Your task to perform on an android device: delete browsing data in the chrome app Image 0: 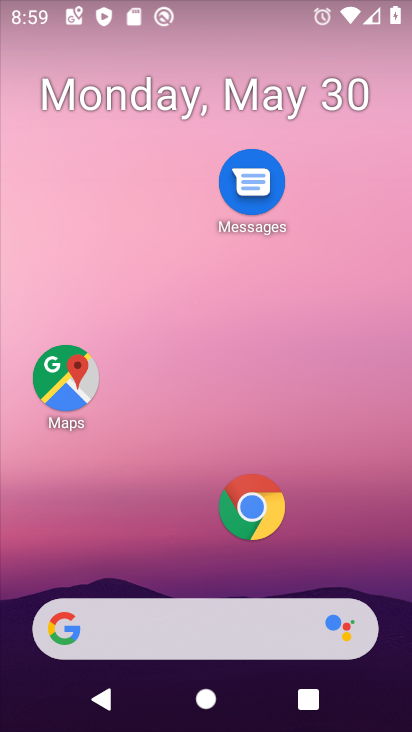
Step 0: click (256, 511)
Your task to perform on an android device: delete browsing data in the chrome app Image 1: 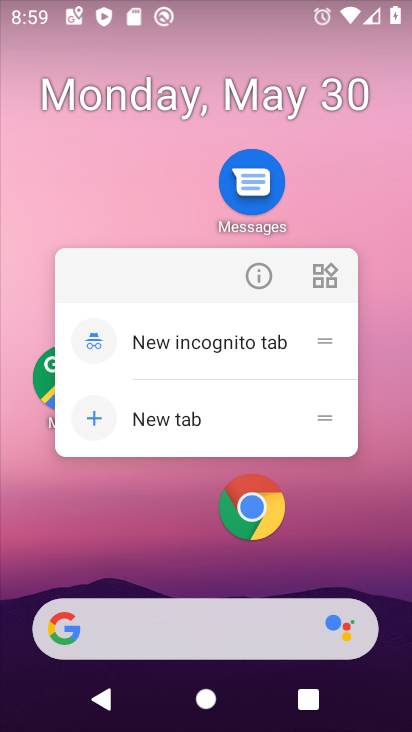
Step 1: click (262, 526)
Your task to perform on an android device: delete browsing data in the chrome app Image 2: 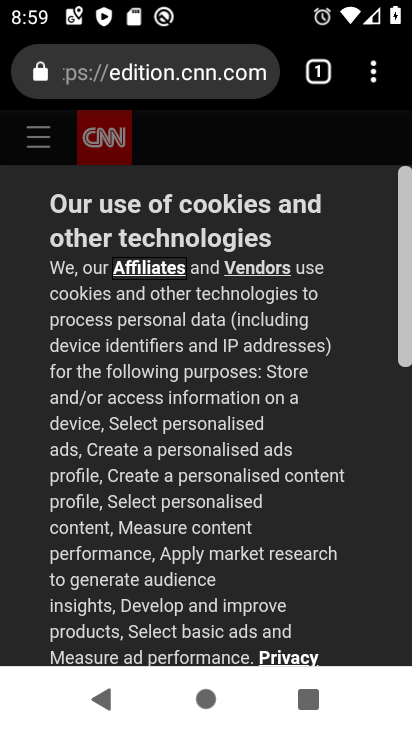
Step 2: click (378, 77)
Your task to perform on an android device: delete browsing data in the chrome app Image 3: 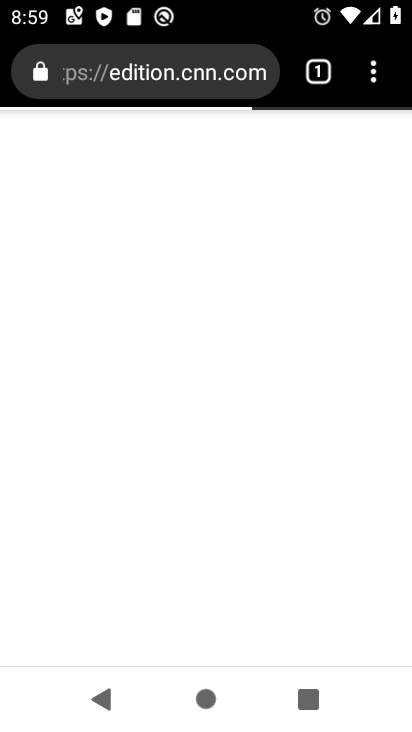
Step 3: click (372, 78)
Your task to perform on an android device: delete browsing data in the chrome app Image 4: 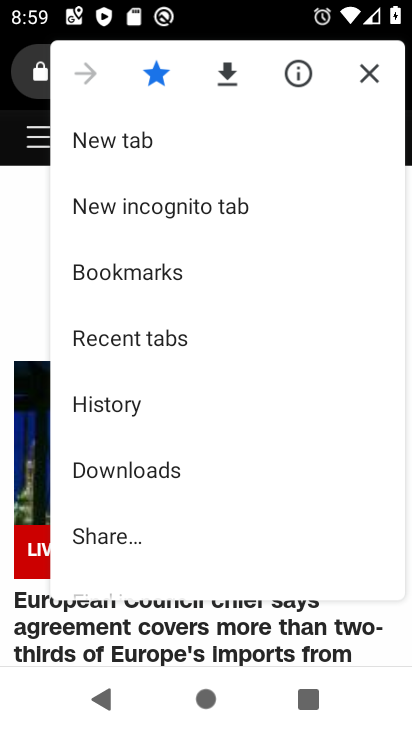
Step 4: click (120, 409)
Your task to perform on an android device: delete browsing data in the chrome app Image 5: 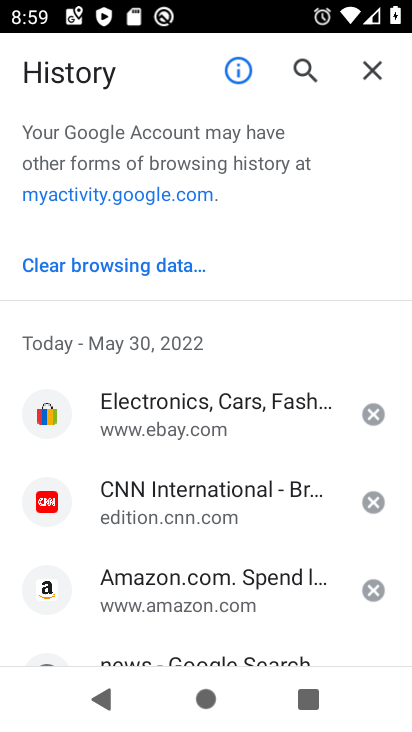
Step 5: click (137, 264)
Your task to perform on an android device: delete browsing data in the chrome app Image 6: 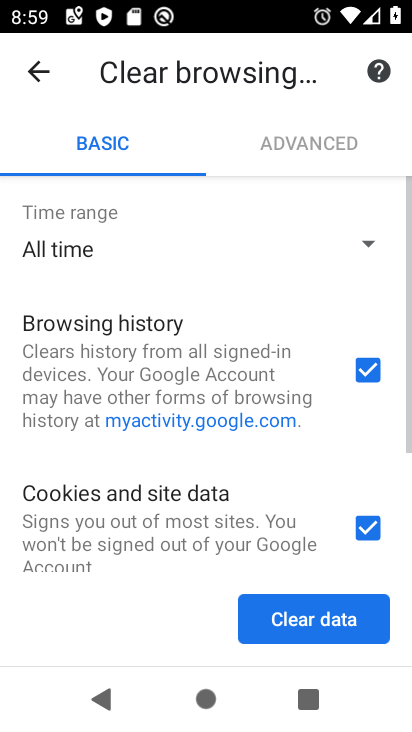
Step 6: drag from (193, 510) to (199, 210)
Your task to perform on an android device: delete browsing data in the chrome app Image 7: 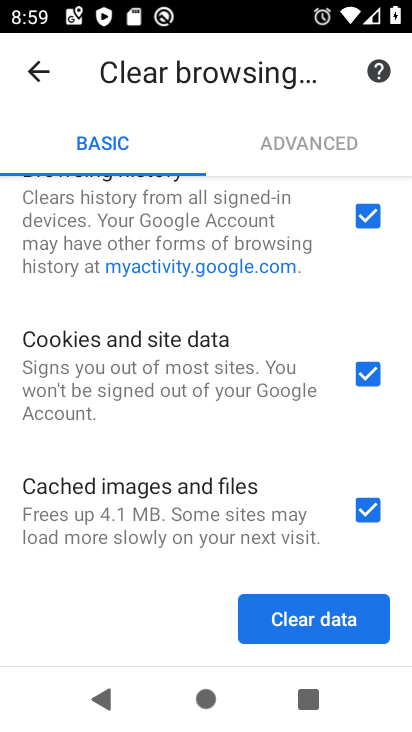
Step 7: click (283, 638)
Your task to perform on an android device: delete browsing data in the chrome app Image 8: 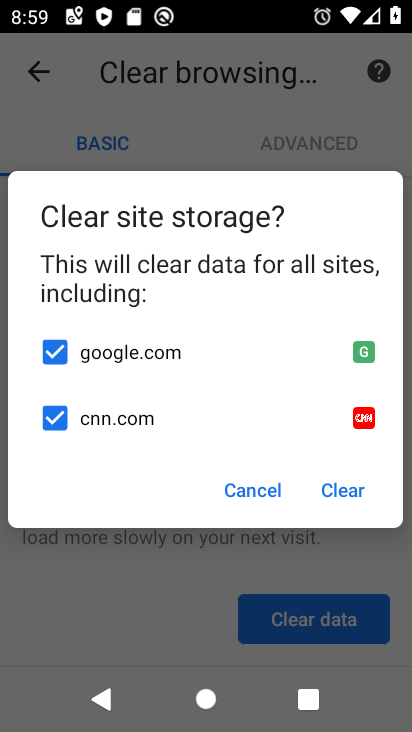
Step 8: click (338, 484)
Your task to perform on an android device: delete browsing data in the chrome app Image 9: 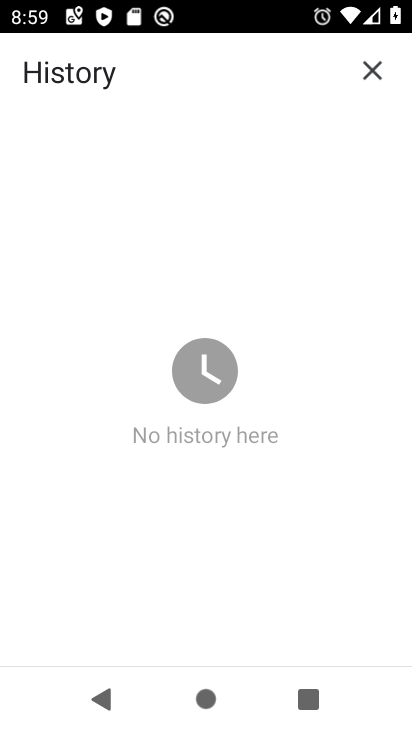
Step 9: task complete